Your task to perform on an android device: Check the news Image 0: 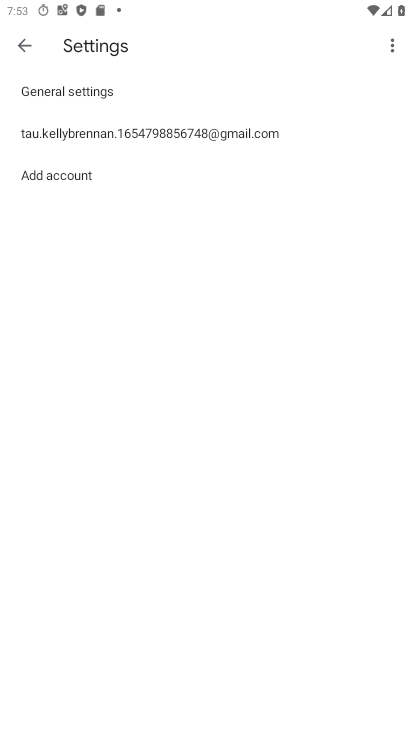
Step 0: press back button
Your task to perform on an android device: Check the news Image 1: 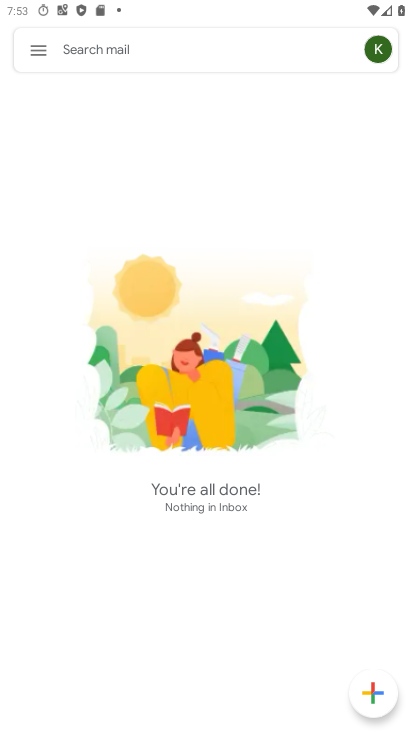
Step 1: press home button
Your task to perform on an android device: Check the news Image 2: 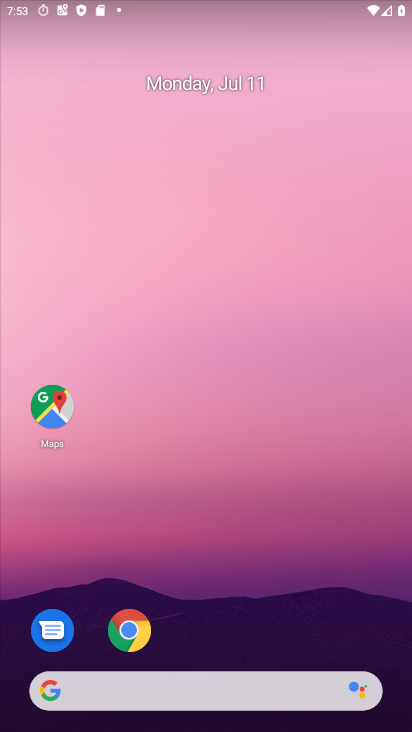
Step 2: click (216, 684)
Your task to perform on an android device: Check the news Image 3: 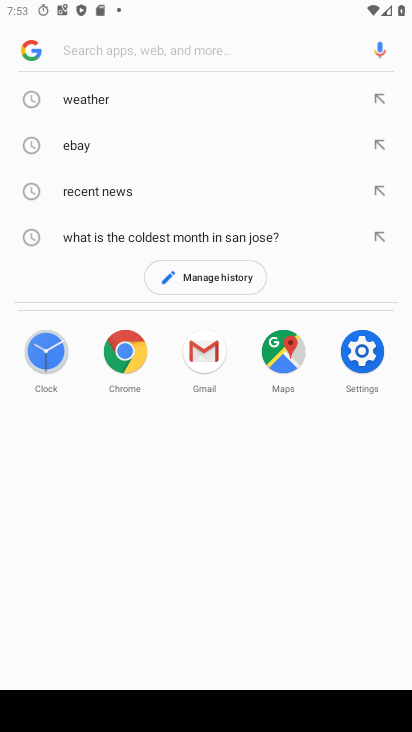
Step 3: click (127, 188)
Your task to perform on an android device: Check the news Image 4: 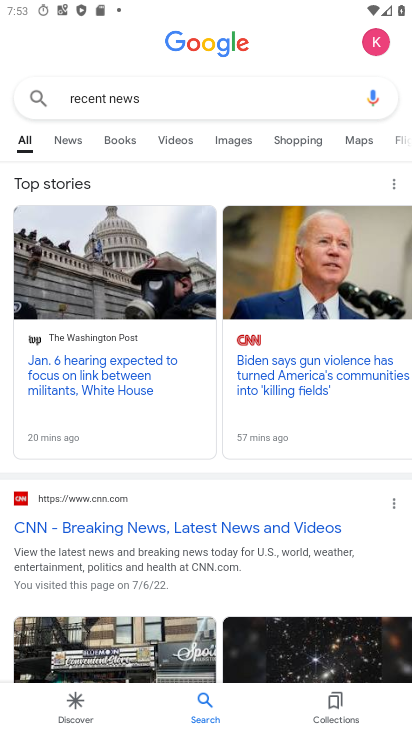
Step 4: task complete